Your task to perform on an android device: create a new album in the google photos Image 0: 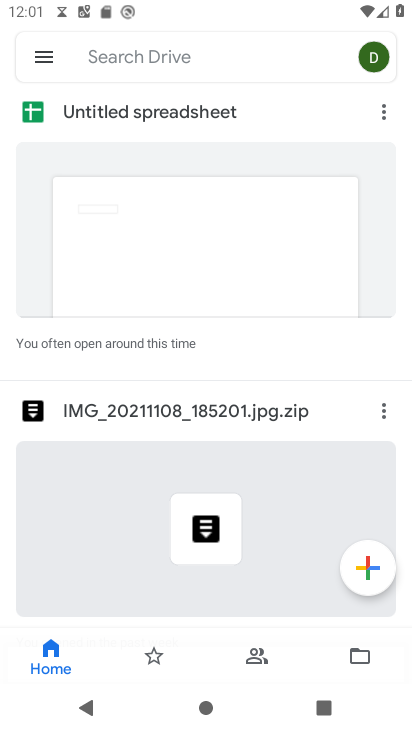
Step 0: drag from (220, 549) to (220, 119)
Your task to perform on an android device: create a new album in the google photos Image 1: 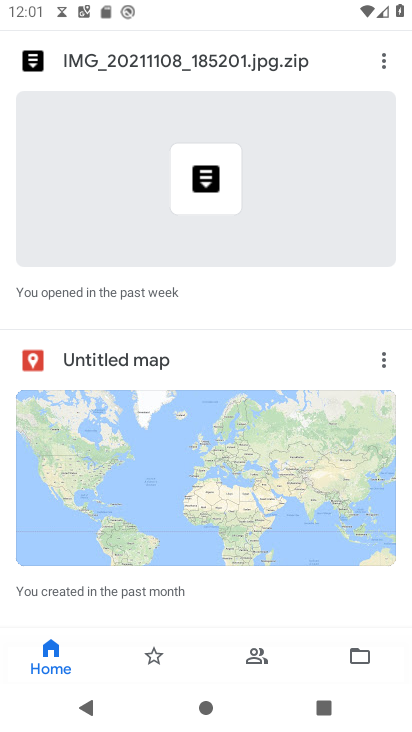
Step 1: press home button
Your task to perform on an android device: create a new album in the google photos Image 2: 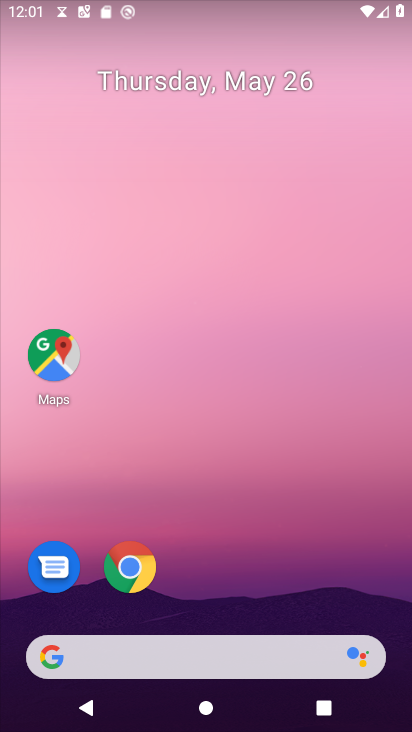
Step 2: drag from (272, 522) to (211, 84)
Your task to perform on an android device: create a new album in the google photos Image 3: 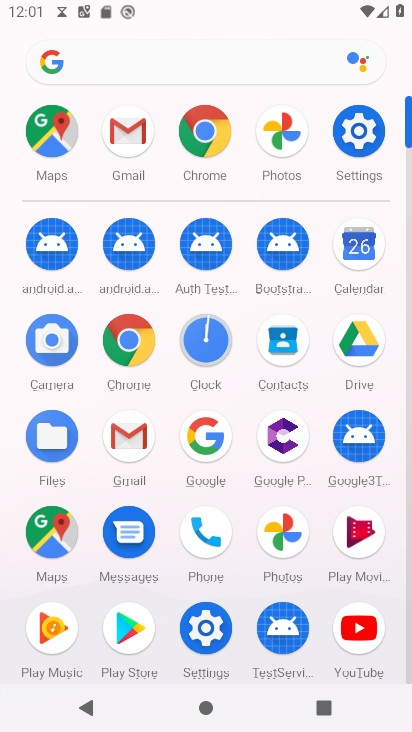
Step 3: click (264, 124)
Your task to perform on an android device: create a new album in the google photos Image 4: 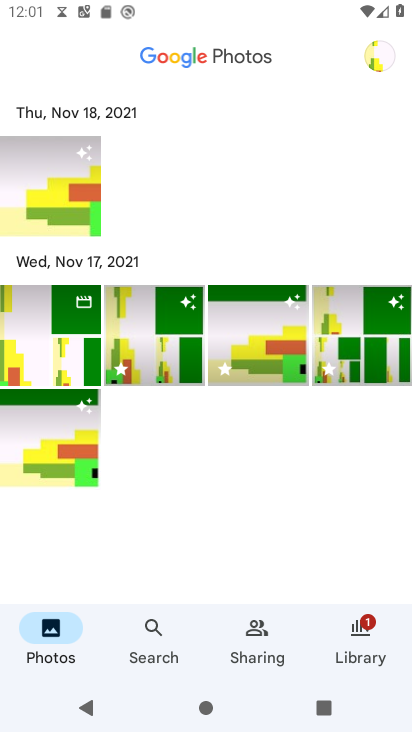
Step 4: click (50, 229)
Your task to perform on an android device: create a new album in the google photos Image 5: 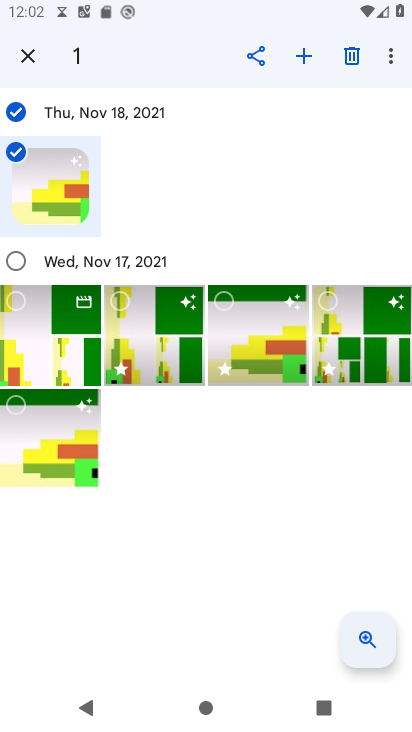
Step 5: click (59, 325)
Your task to perform on an android device: create a new album in the google photos Image 6: 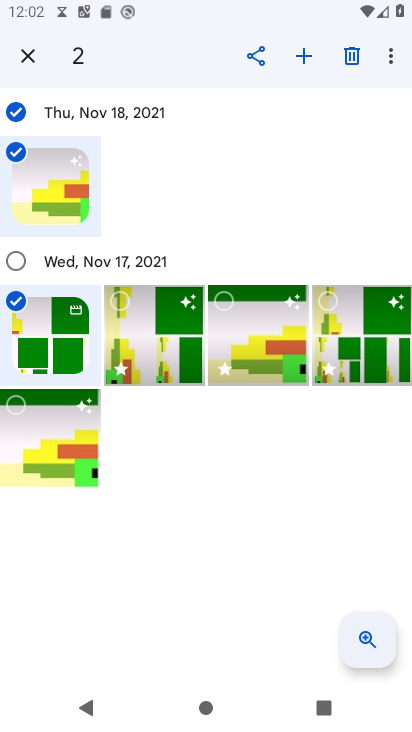
Step 6: click (59, 457)
Your task to perform on an android device: create a new album in the google photos Image 7: 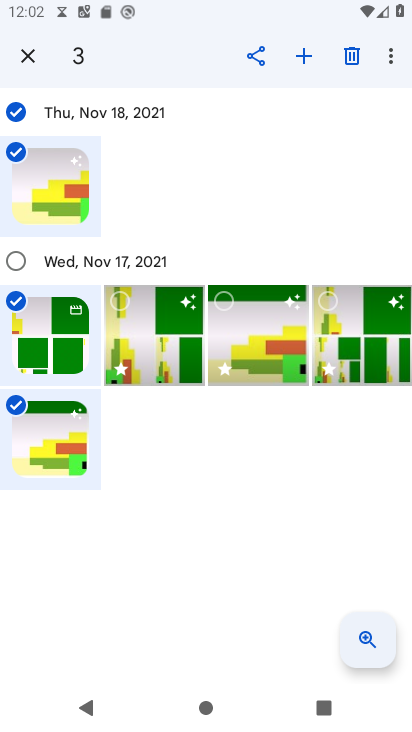
Step 7: click (316, 46)
Your task to perform on an android device: create a new album in the google photos Image 8: 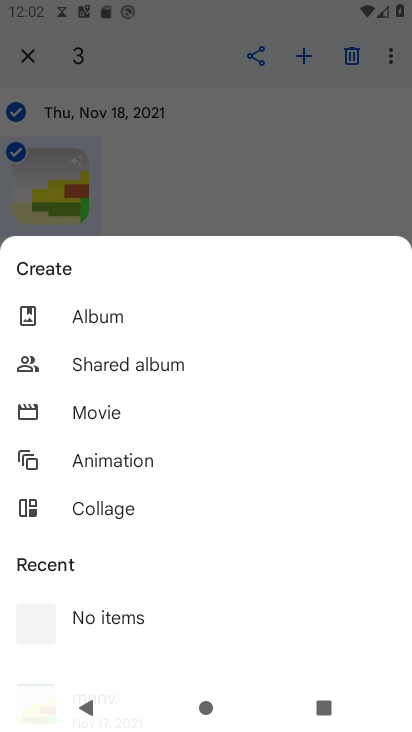
Step 8: drag from (125, 612) to (116, 273)
Your task to perform on an android device: create a new album in the google photos Image 9: 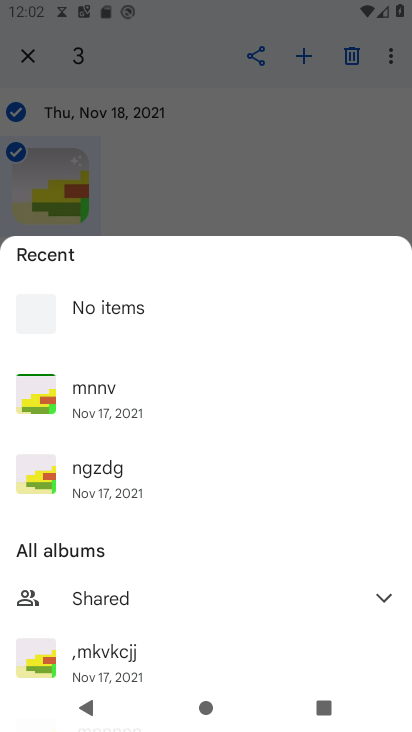
Step 9: drag from (137, 353) to (141, 635)
Your task to perform on an android device: create a new album in the google photos Image 10: 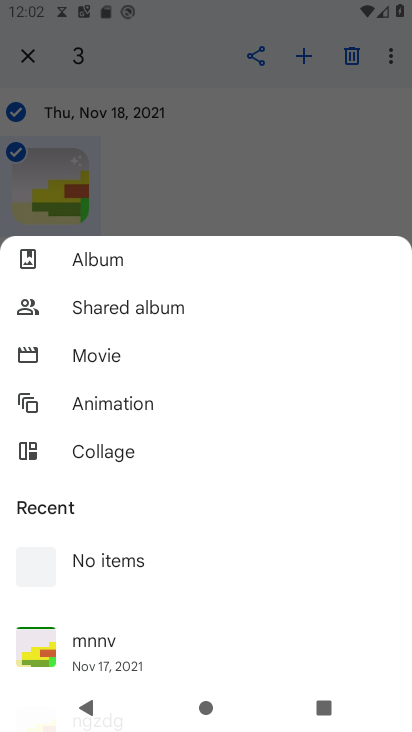
Step 10: click (75, 262)
Your task to perform on an android device: create a new album in the google photos Image 11: 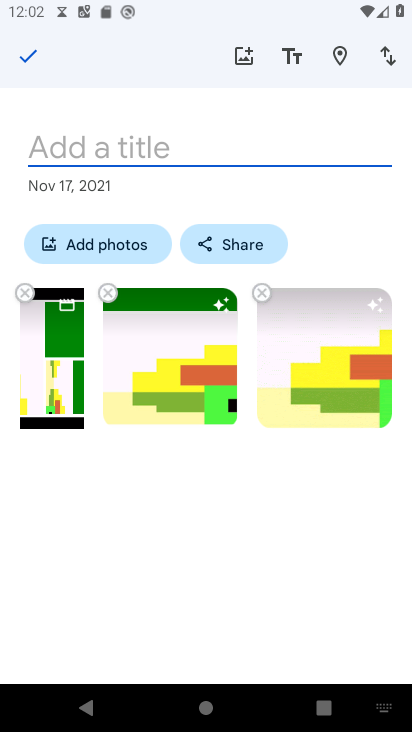
Step 11: type "siduti"
Your task to perform on an android device: create a new album in the google photos Image 12: 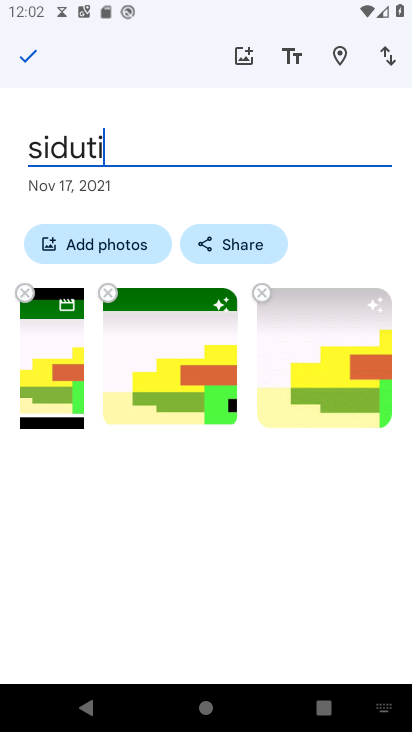
Step 12: click (22, 55)
Your task to perform on an android device: create a new album in the google photos Image 13: 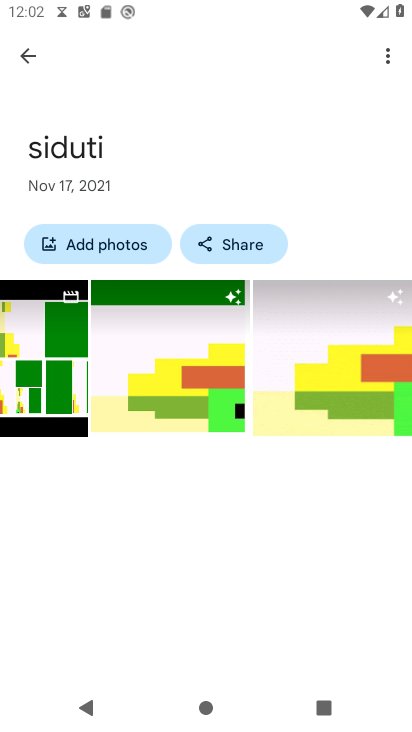
Step 13: task complete